Your task to perform on an android device: change timer sound Image 0: 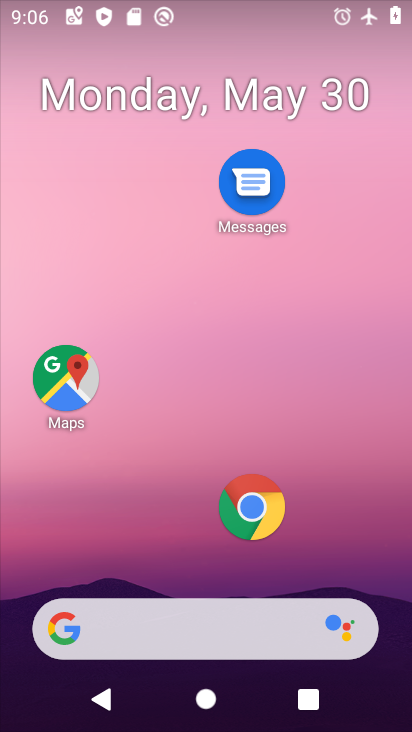
Step 0: drag from (222, 574) to (247, 295)
Your task to perform on an android device: change timer sound Image 1: 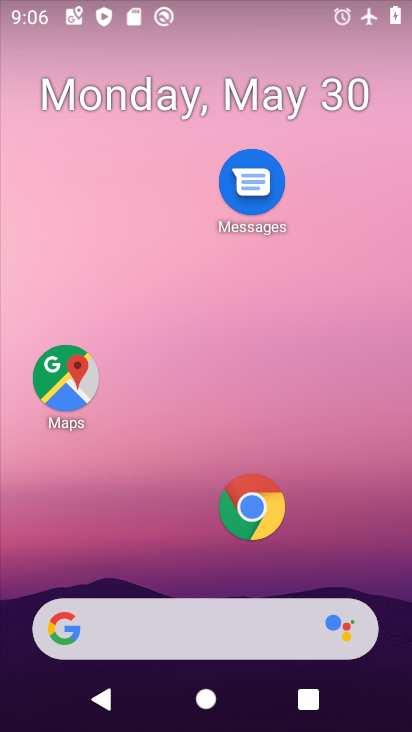
Step 1: drag from (197, 554) to (190, 60)
Your task to perform on an android device: change timer sound Image 2: 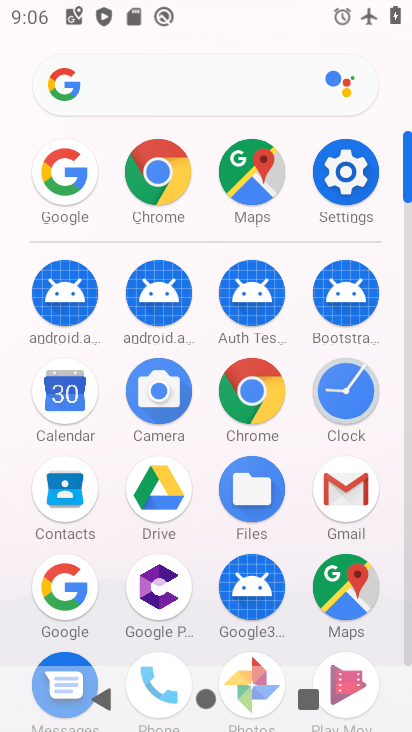
Step 2: click (347, 403)
Your task to perform on an android device: change timer sound Image 3: 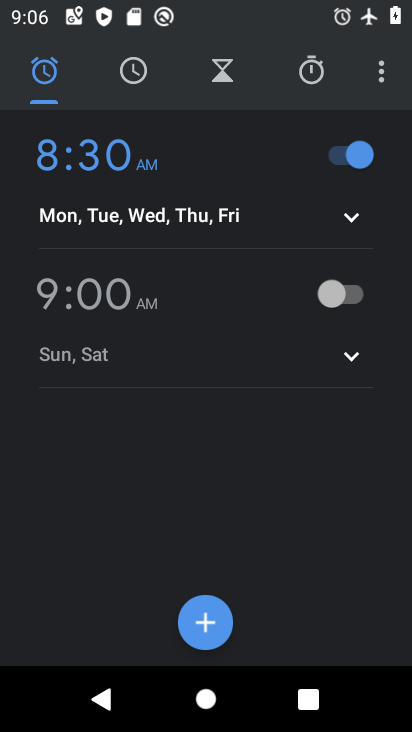
Step 3: click (385, 81)
Your task to perform on an android device: change timer sound Image 4: 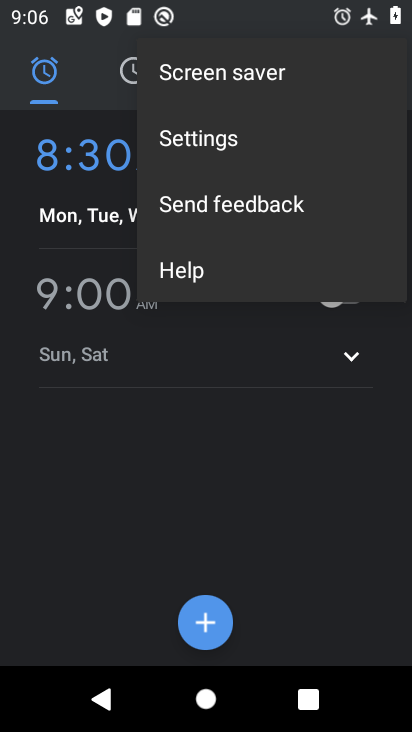
Step 4: click (205, 147)
Your task to perform on an android device: change timer sound Image 5: 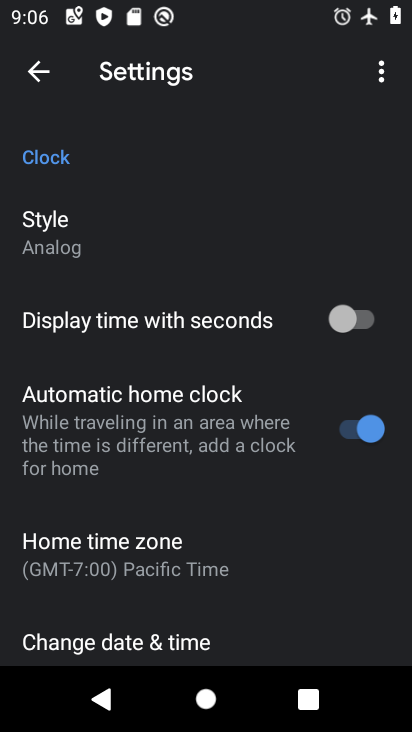
Step 5: drag from (124, 531) to (131, 194)
Your task to perform on an android device: change timer sound Image 6: 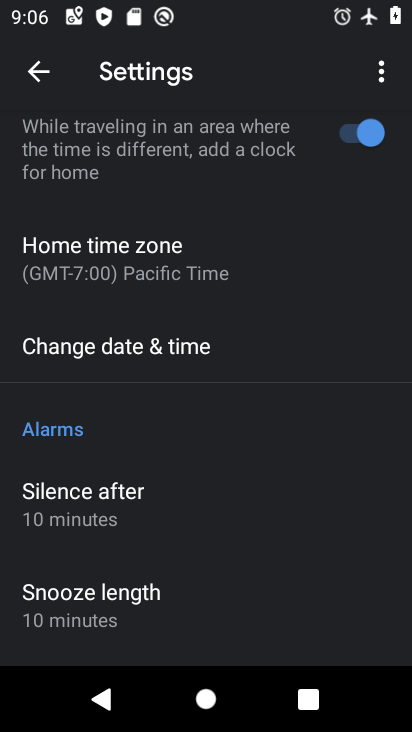
Step 6: drag from (109, 515) to (109, 302)
Your task to perform on an android device: change timer sound Image 7: 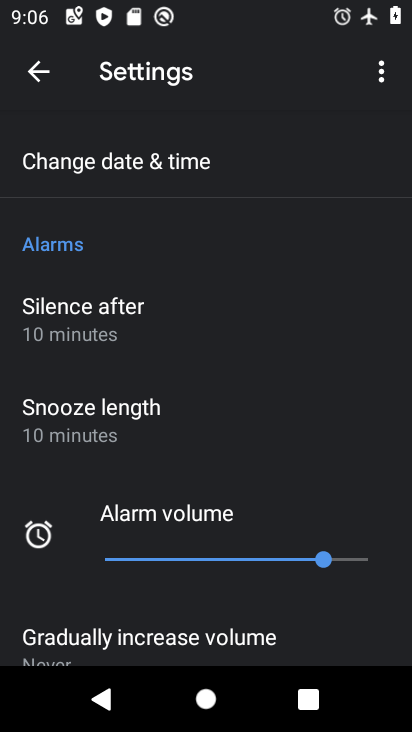
Step 7: drag from (89, 558) to (151, 316)
Your task to perform on an android device: change timer sound Image 8: 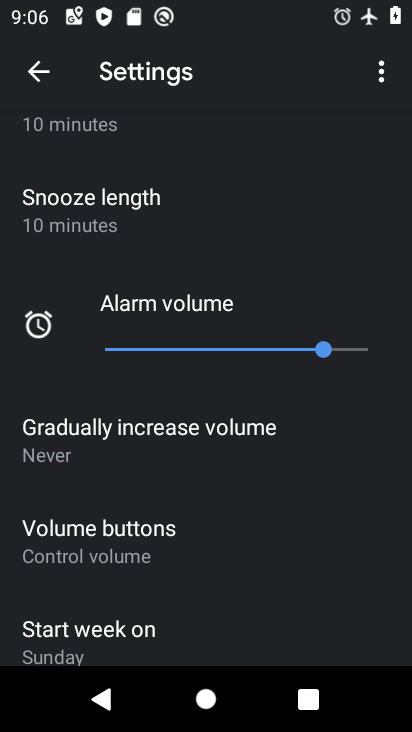
Step 8: drag from (177, 475) to (202, 286)
Your task to perform on an android device: change timer sound Image 9: 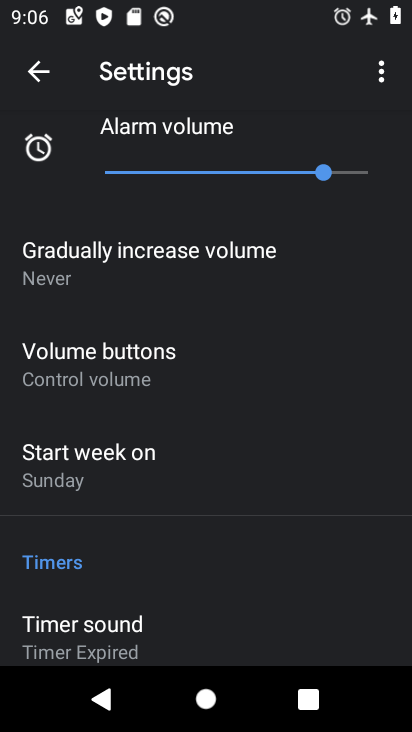
Step 9: drag from (186, 558) to (221, 362)
Your task to perform on an android device: change timer sound Image 10: 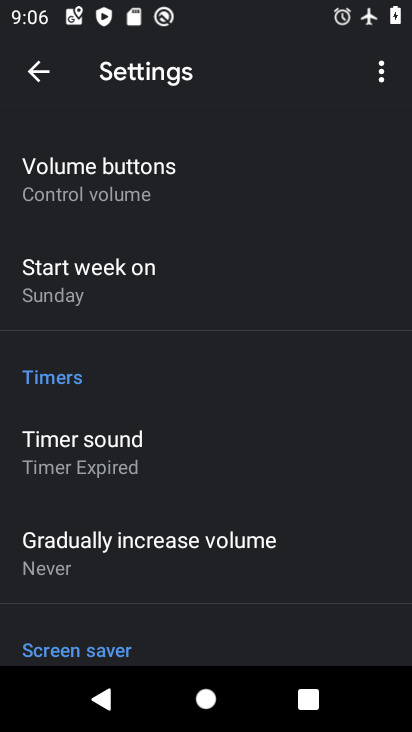
Step 10: click (94, 464)
Your task to perform on an android device: change timer sound Image 11: 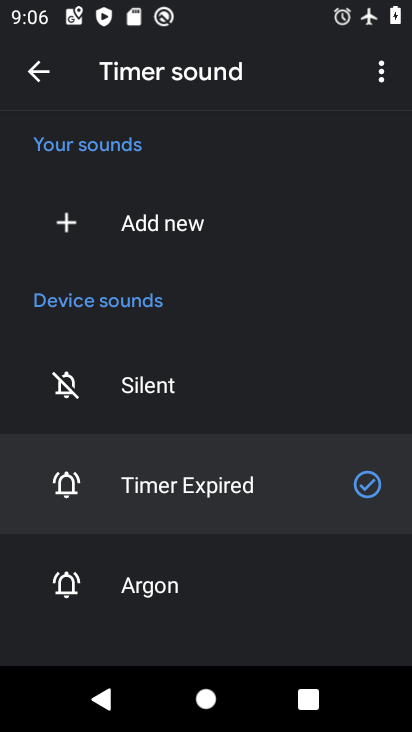
Step 11: click (109, 590)
Your task to perform on an android device: change timer sound Image 12: 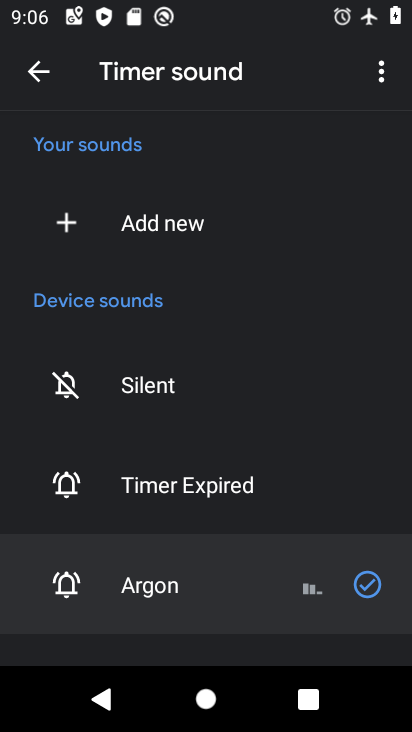
Step 12: task complete